Your task to perform on an android device: turn off picture-in-picture Image 0: 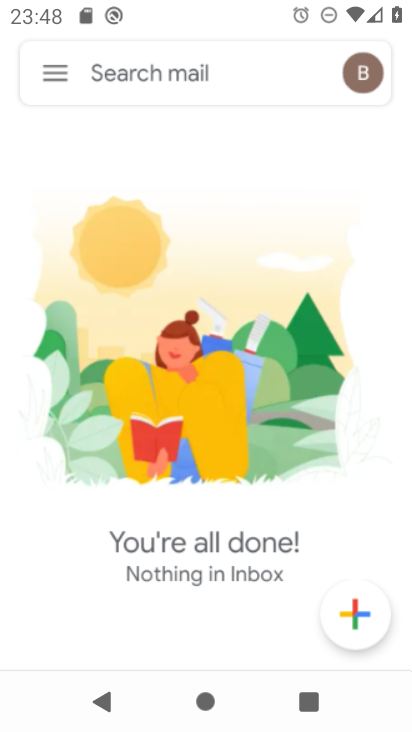
Step 0: press home button
Your task to perform on an android device: turn off picture-in-picture Image 1: 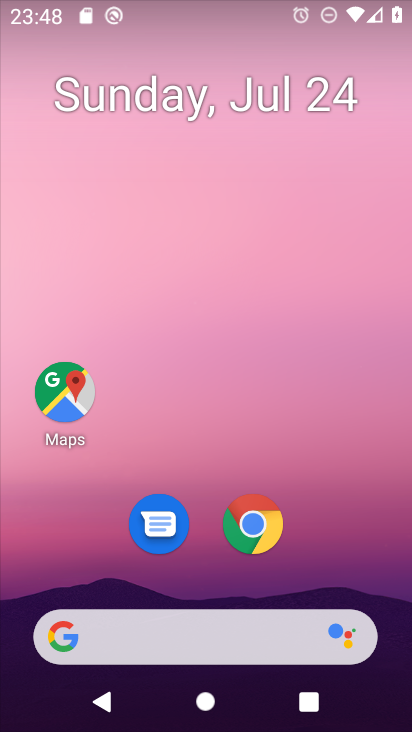
Step 1: click (255, 520)
Your task to perform on an android device: turn off picture-in-picture Image 2: 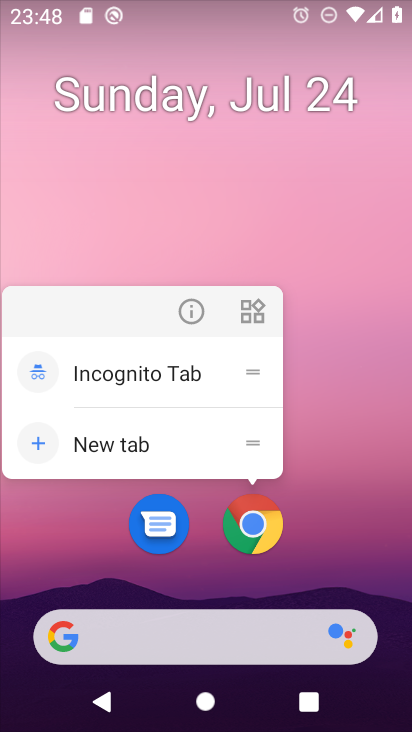
Step 2: click (193, 310)
Your task to perform on an android device: turn off picture-in-picture Image 3: 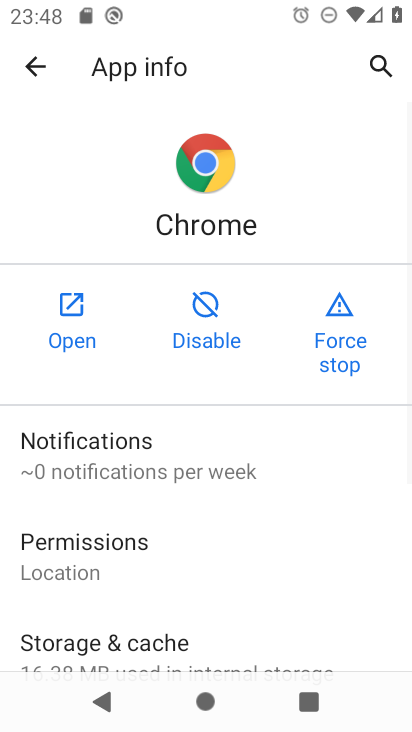
Step 3: drag from (256, 472) to (356, 83)
Your task to perform on an android device: turn off picture-in-picture Image 4: 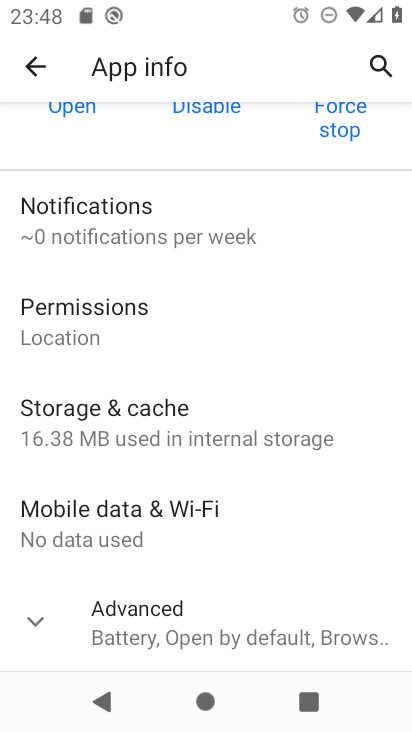
Step 4: drag from (258, 567) to (375, 122)
Your task to perform on an android device: turn off picture-in-picture Image 5: 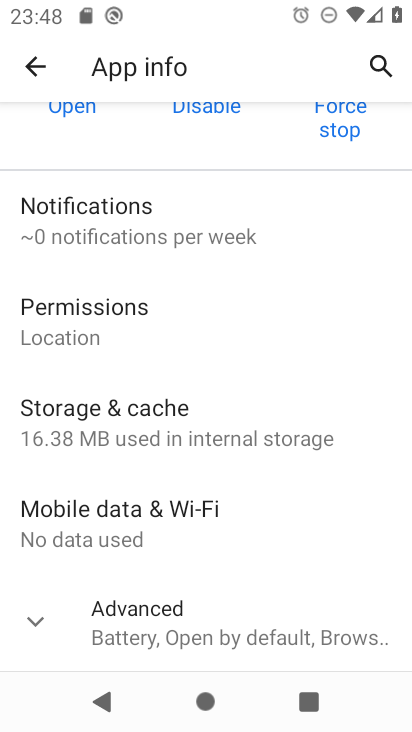
Step 5: click (154, 612)
Your task to perform on an android device: turn off picture-in-picture Image 6: 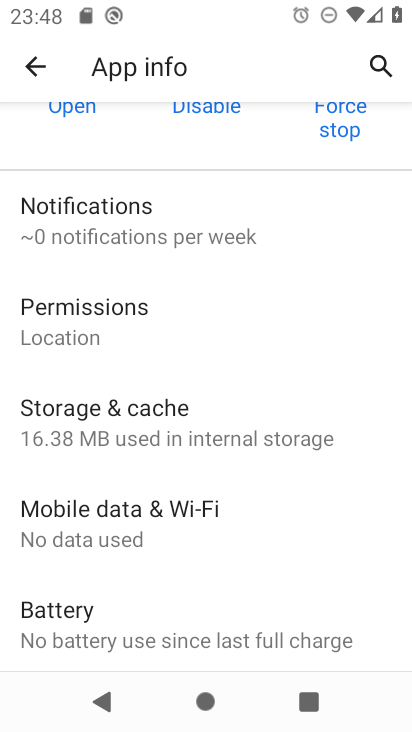
Step 6: drag from (211, 579) to (333, 211)
Your task to perform on an android device: turn off picture-in-picture Image 7: 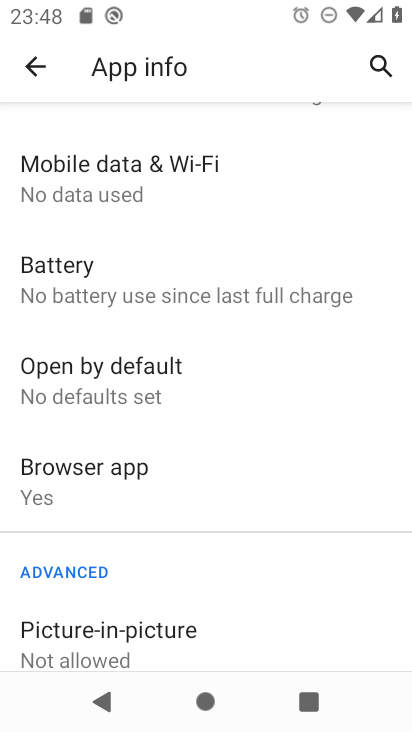
Step 7: drag from (243, 580) to (306, 351)
Your task to perform on an android device: turn off picture-in-picture Image 8: 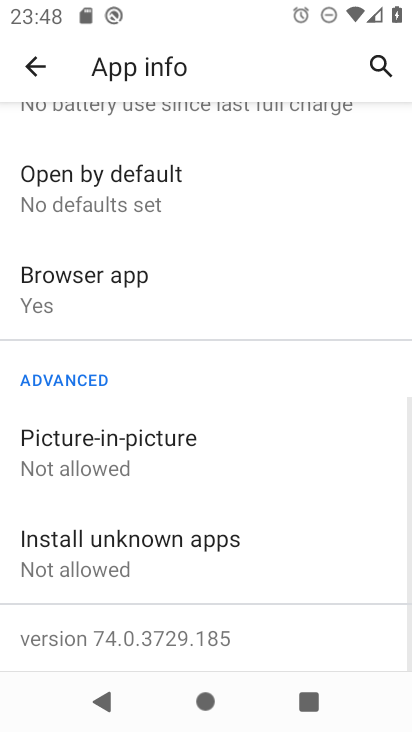
Step 8: click (124, 448)
Your task to perform on an android device: turn off picture-in-picture Image 9: 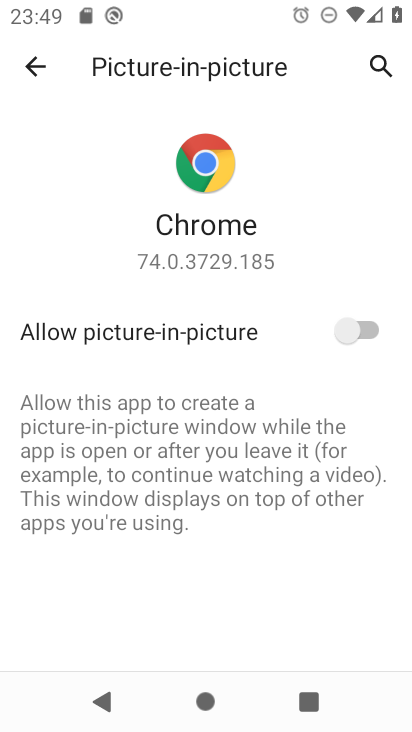
Step 9: task complete